Your task to perform on an android device: Open calendar and show me the second week of next month Image 0: 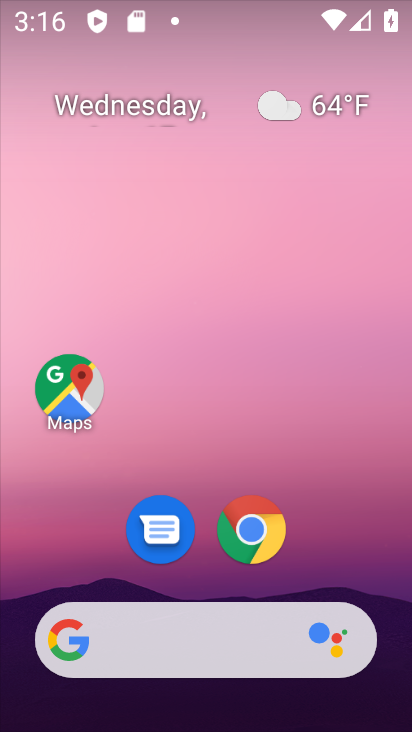
Step 0: drag from (287, 474) to (329, 132)
Your task to perform on an android device: Open calendar and show me the second week of next month Image 1: 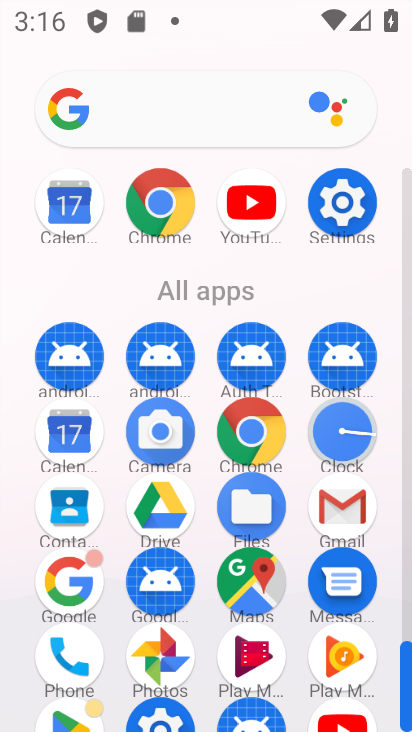
Step 1: click (80, 441)
Your task to perform on an android device: Open calendar and show me the second week of next month Image 2: 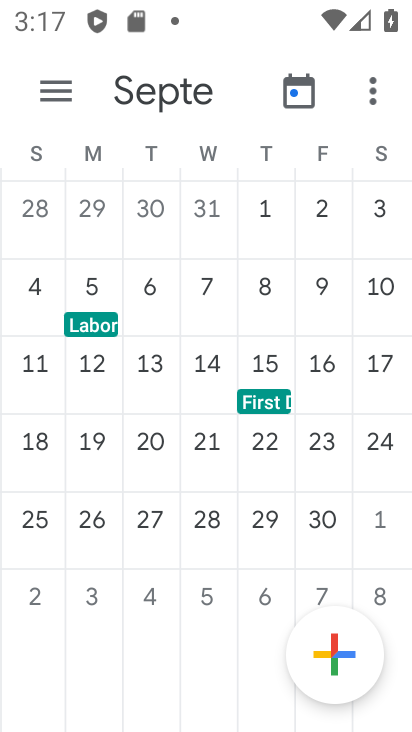
Step 2: task complete